Your task to perform on an android device: Open Yahoo.com Image 0: 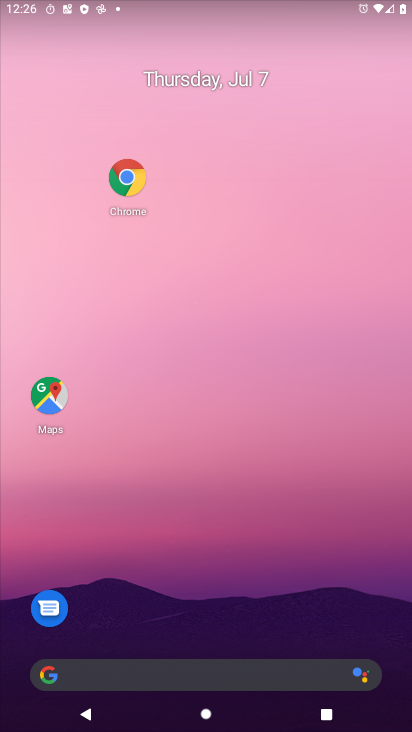
Step 0: click (123, 180)
Your task to perform on an android device: Open Yahoo.com Image 1: 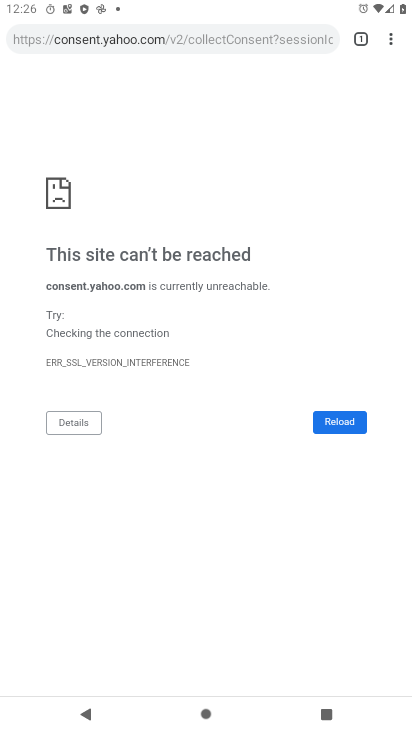
Step 1: click (332, 426)
Your task to perform on an android device: Open Yahoo.com Image 2: 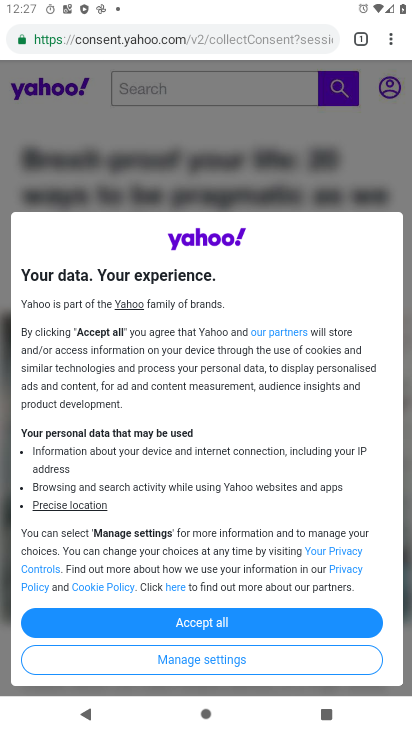
Step 2: click (354, 38)
Your task to perform on an android device: Open Yahoo.com Image 3: 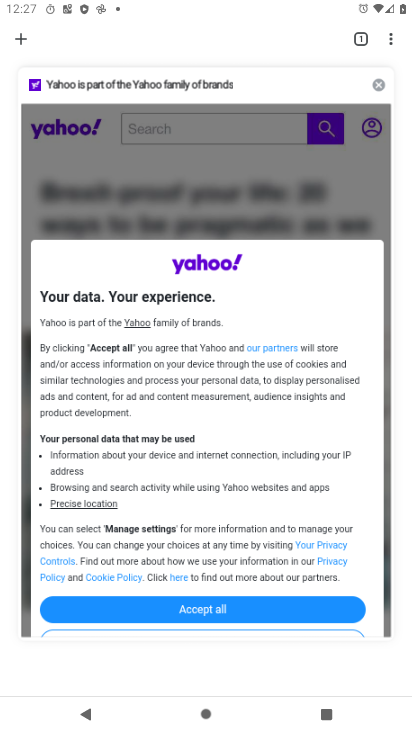
Step 3: click (375, 82)
Your task to perform on an android device: Open Yahoo.com Image 4: 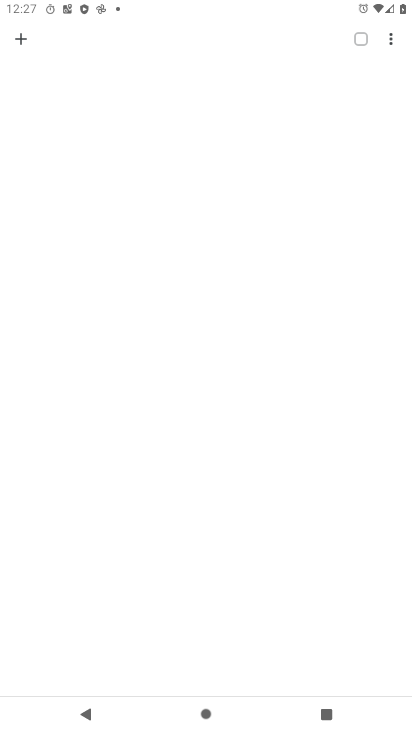
Step 4: click (14, 42)
Your task to perform on an android device: Open Yahoo.com Image 5: 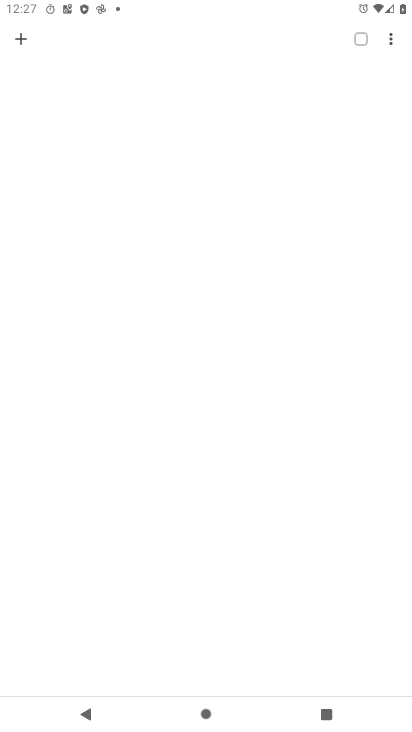
Step 5: click (16, 38)
Your task to perform on an android device: Open Yahoo.com Image 6: 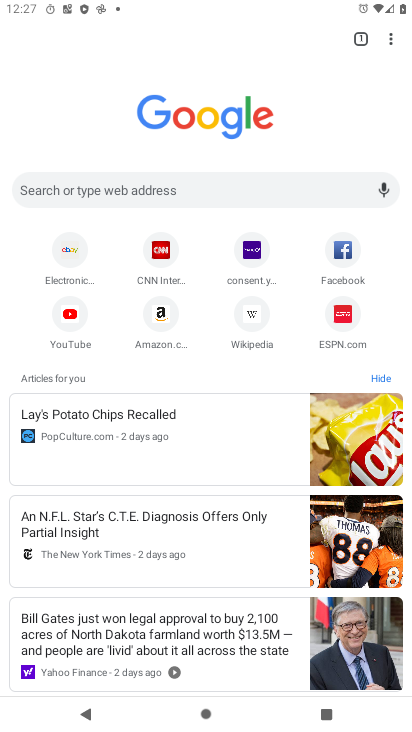
Step 6: click (254, 250)
Your task to perform on an android device: Open Yahoo.com Image 7: 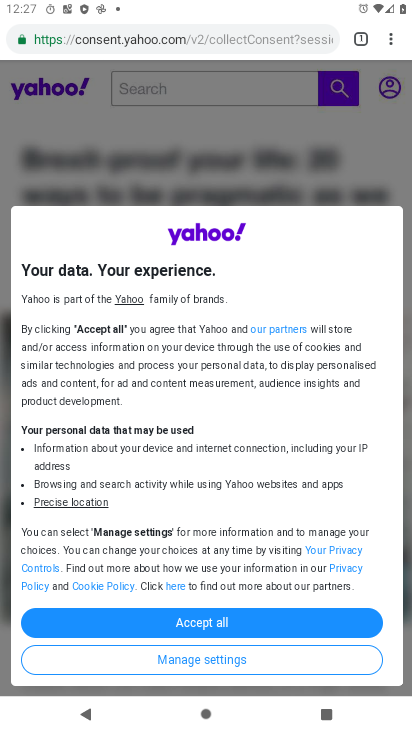
Step 7: task complete